Your task to perform on an android device: Go to Yahoo.com Image 0: 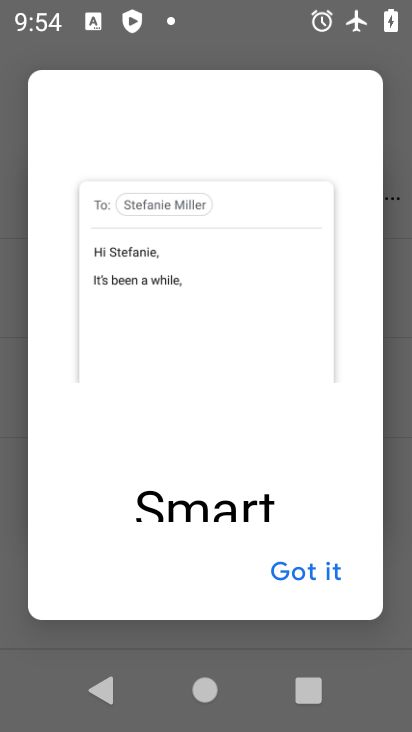
Step 0: press home button
Your task to perform on an android device: Go to Yahoo.com Image 1: 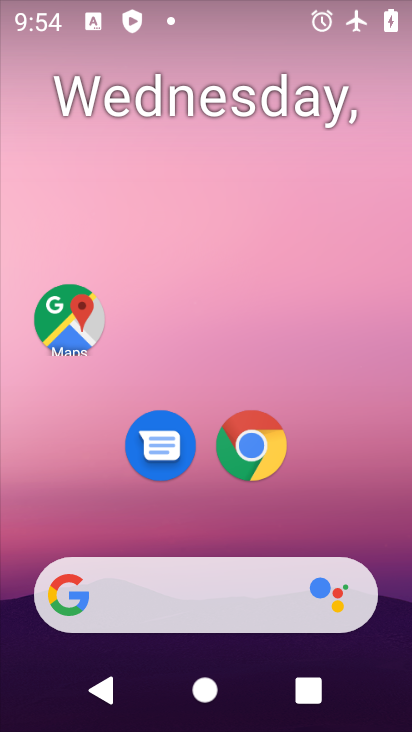
Step 1: drag from (372, 532) to (410, 95)
Your task to perform on an android device: Go to Yahoo.com Image 2: 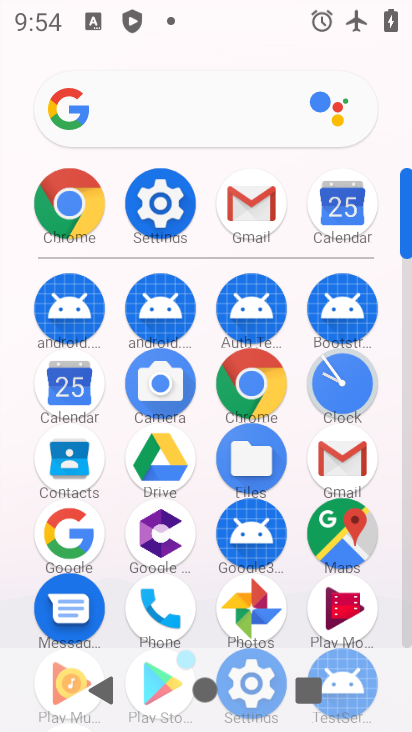
Step 2: click (77, 226)
Your task to perform on an android device: Go to Yahoo.com Image 3: 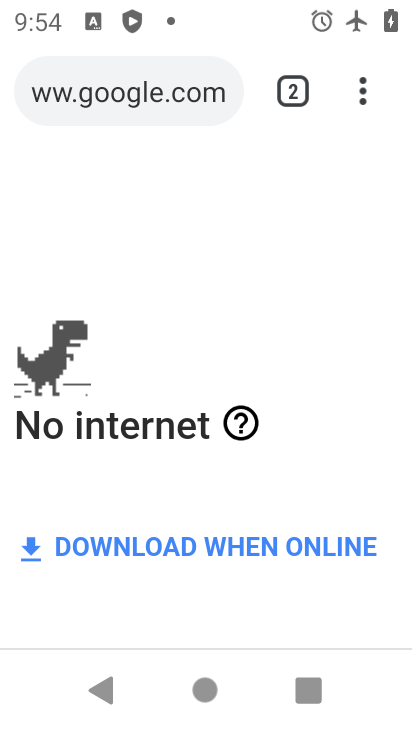
Step 3: click (140, 80)
Your task to perform on an android device: Go to Yahoo.com Image 4: 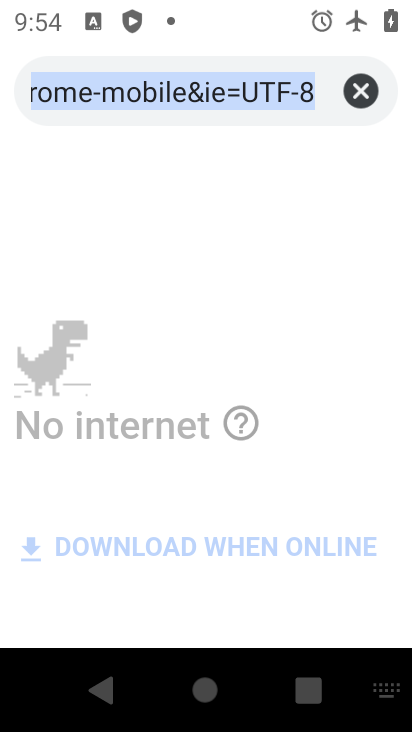
Step 4: click (361, 93)
Your task to perform on an android device: Go to Yahoo.com Image 5: 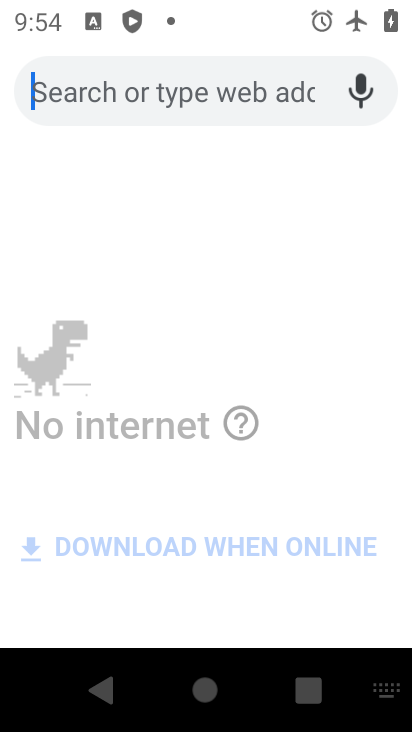
Step 5: type "yahoo"
Your task to perform on an android device: Go to Yahoo.com Image 6: 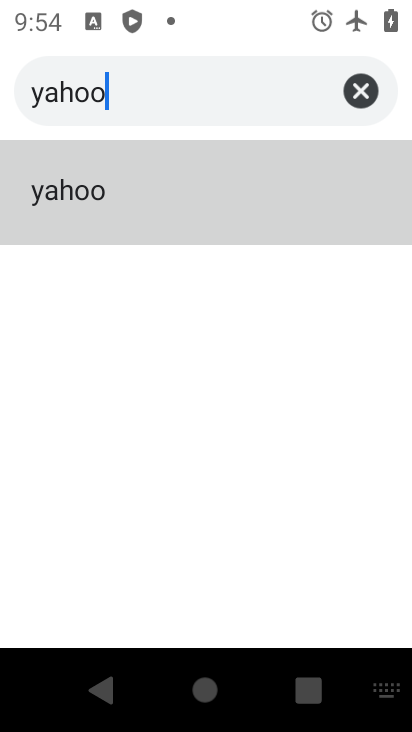
Step 6: click (49, 198)
Your task to perform on an android device: Go to Yahoo.com Image 7: 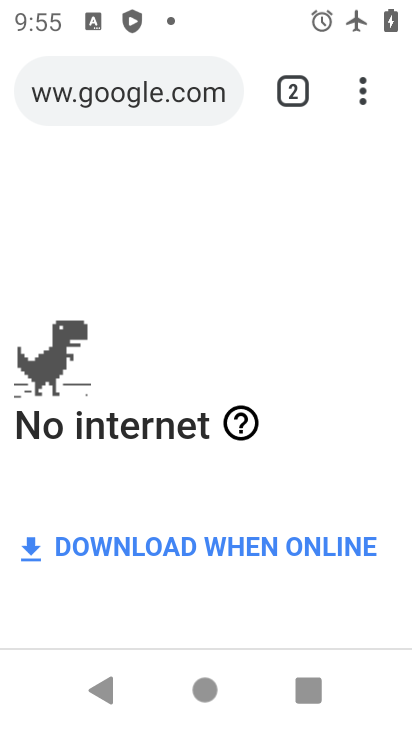
Step 7: task complete